Your task to perform on an android device: Search for "bose soundlink mini" on bestbuy.com, select the first entry, and add it to the cart. Image 0: 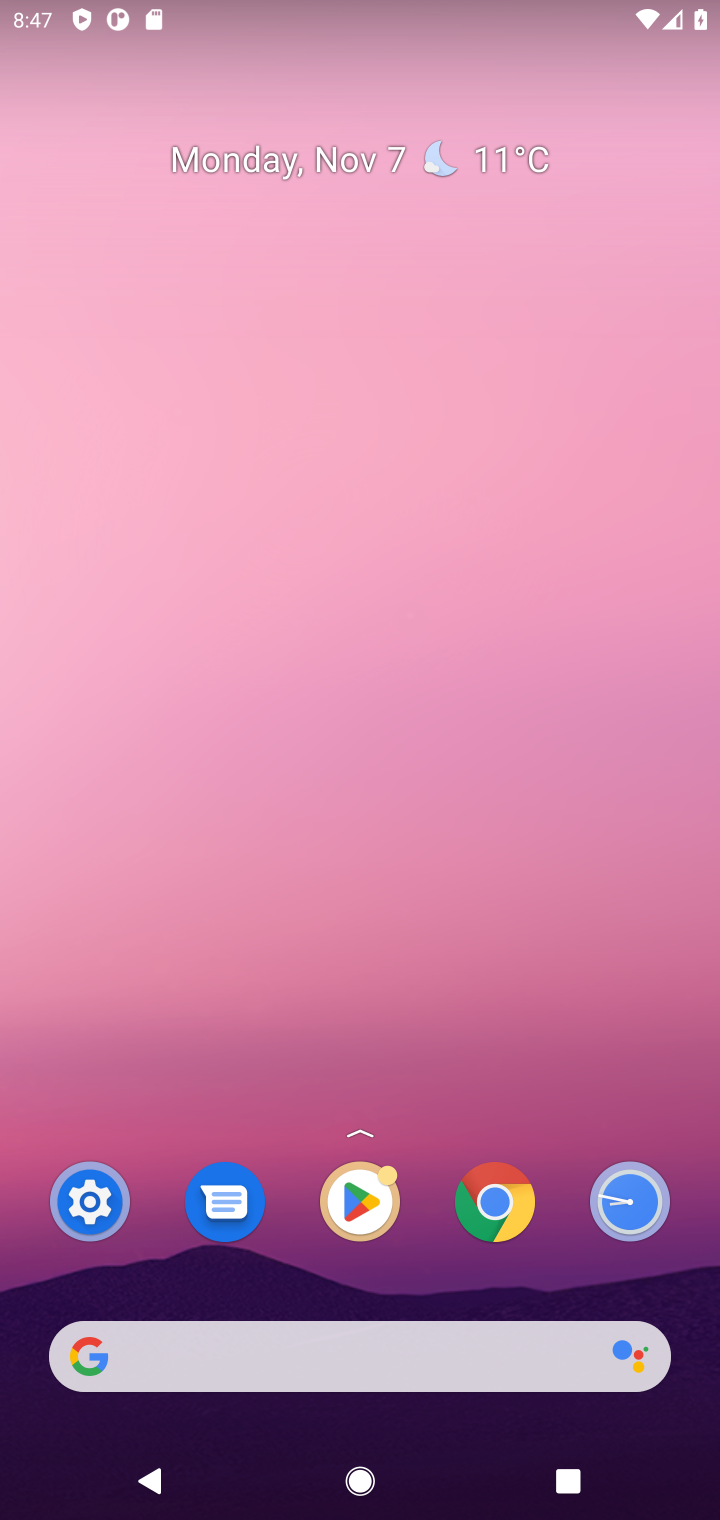
Step 0: drag from (438, 1293) to (314, 309)
Your task to perform on an android device: Search for "bose soundlink mini" on bestbuy.com, select the first entry, and add it to the cart. Image 1: 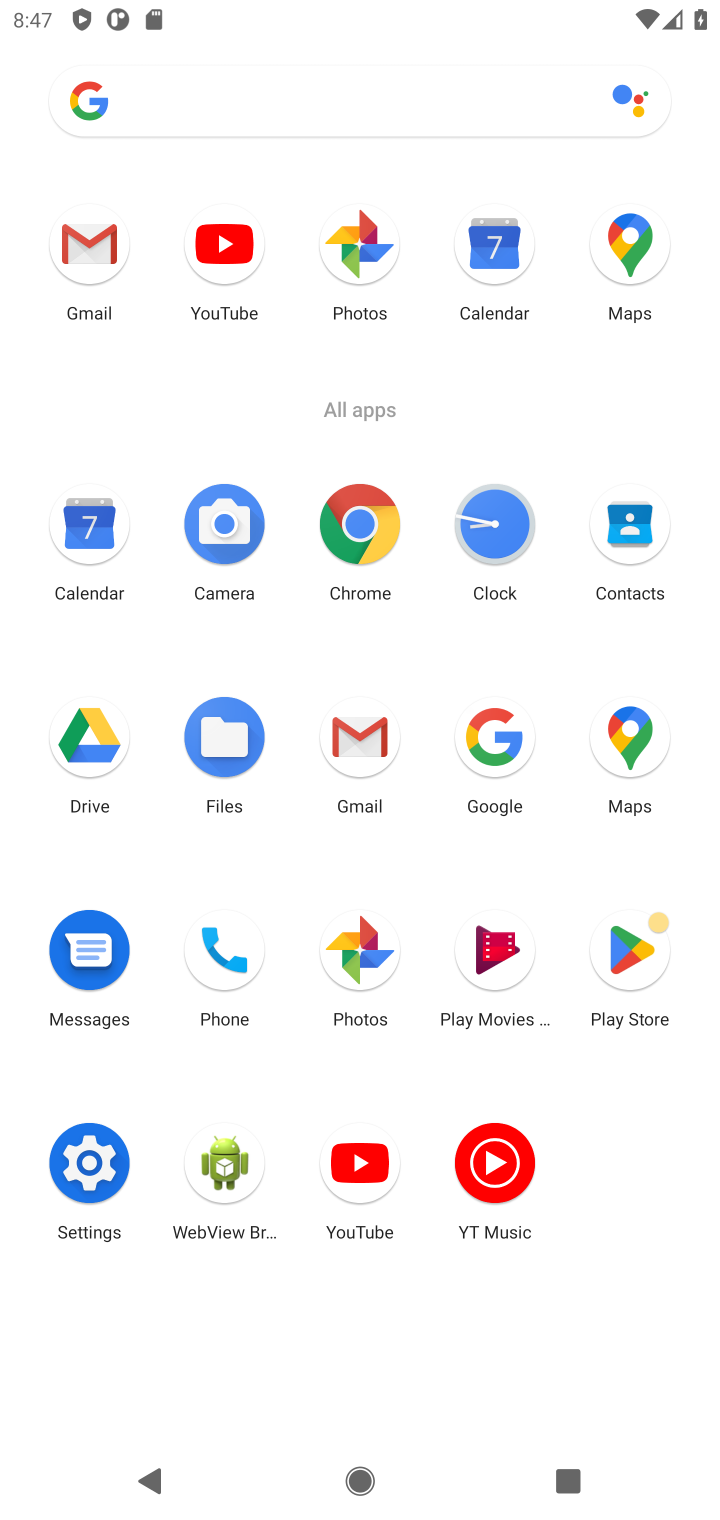
Step 1: click (354, 523)
Your task to perform on an android device: Search for "bose soundlink mini" on bestbuy.com, select the first entry, and add it to the cart. Image 2: 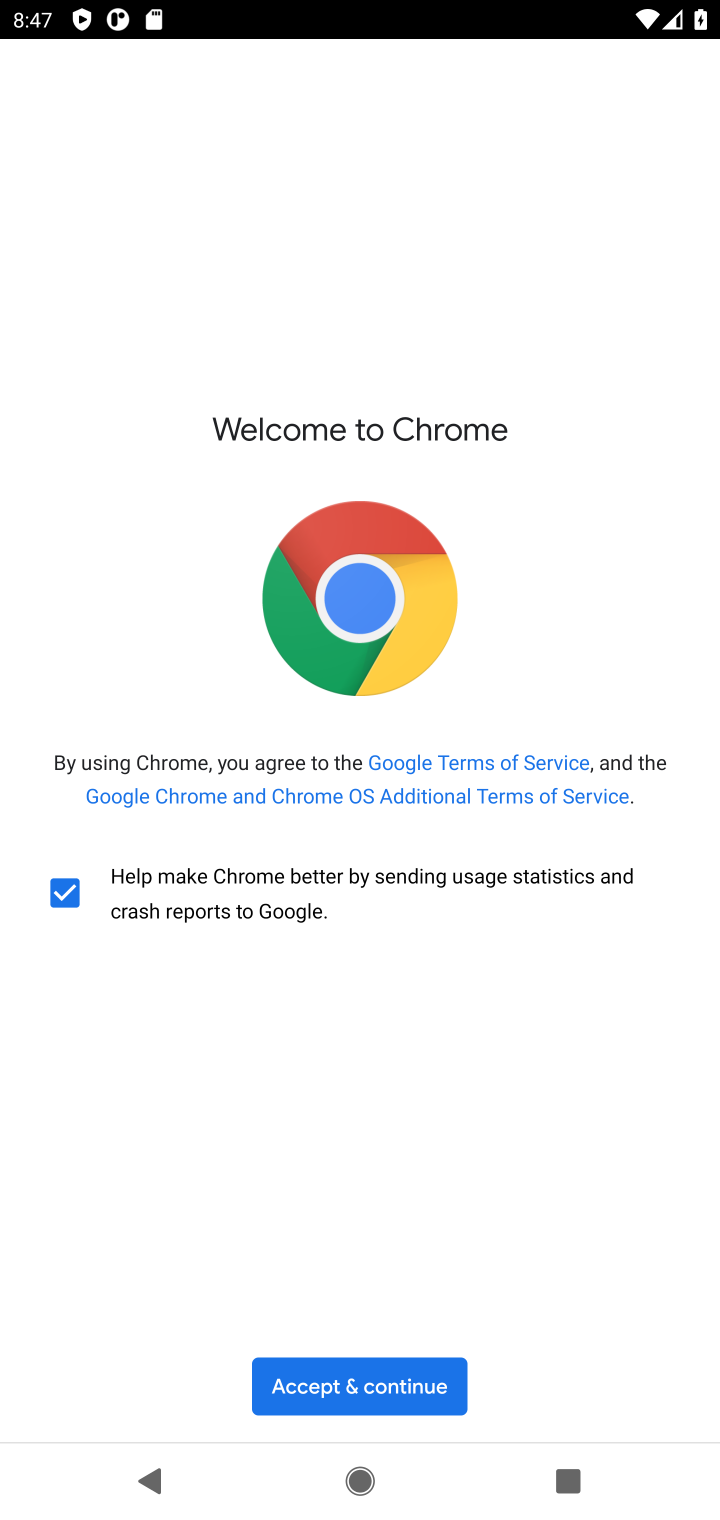
Step 2: click (403, 1382)
Your task to perform on an android device: Search for "bose soundlink mini" on bestbuy.com, select the first entry, and add it to the cart. Image 3: 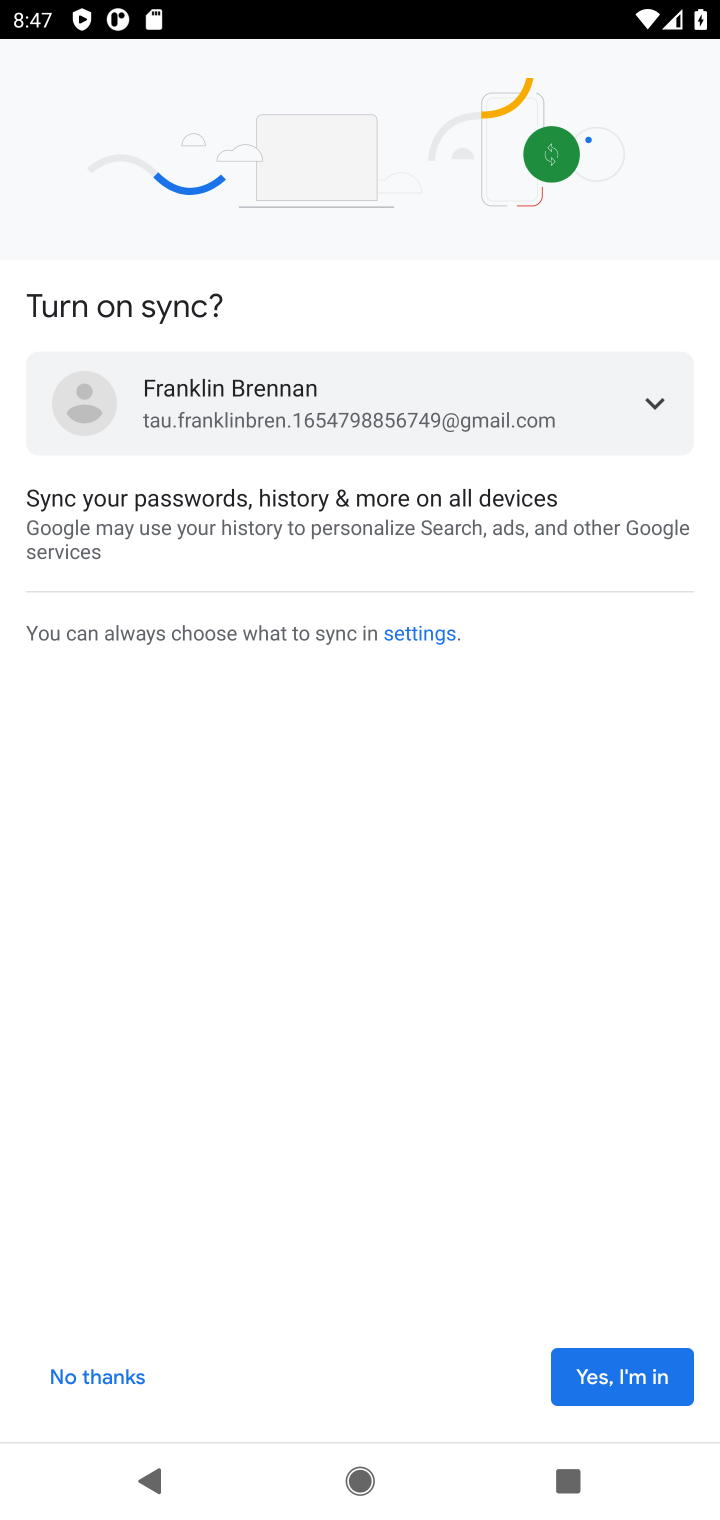
Step 3: click (646, 1382)
Your task to perform on an android device: Search for "bose soundlink mini" on bestbuy.com, select the first entry, and add it to the cart. Image 4: 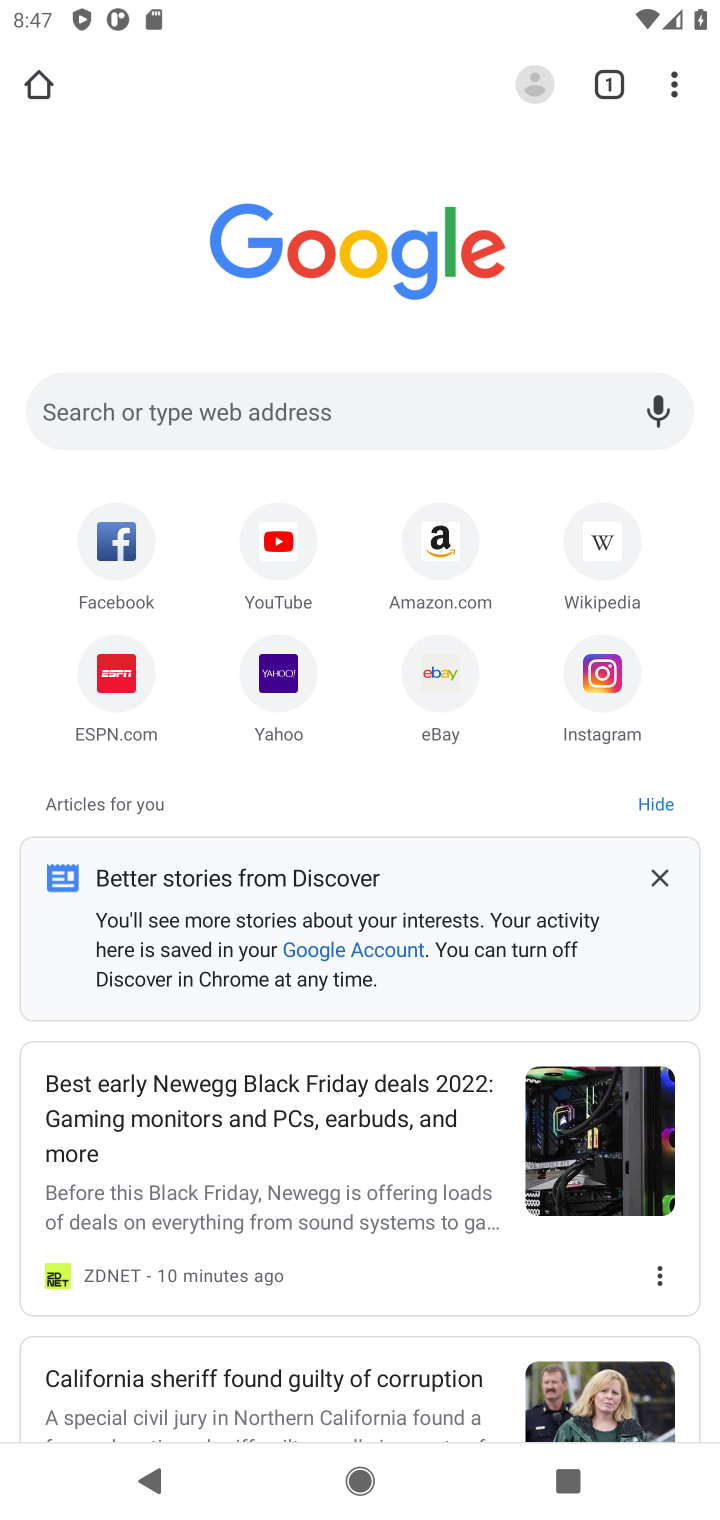
Step 4: click (396, 415)
Your task to perform on an android device: Search for "bose soundlink mini" on bestbuy.com, select the first entry, and add it to the cart. Image 5: 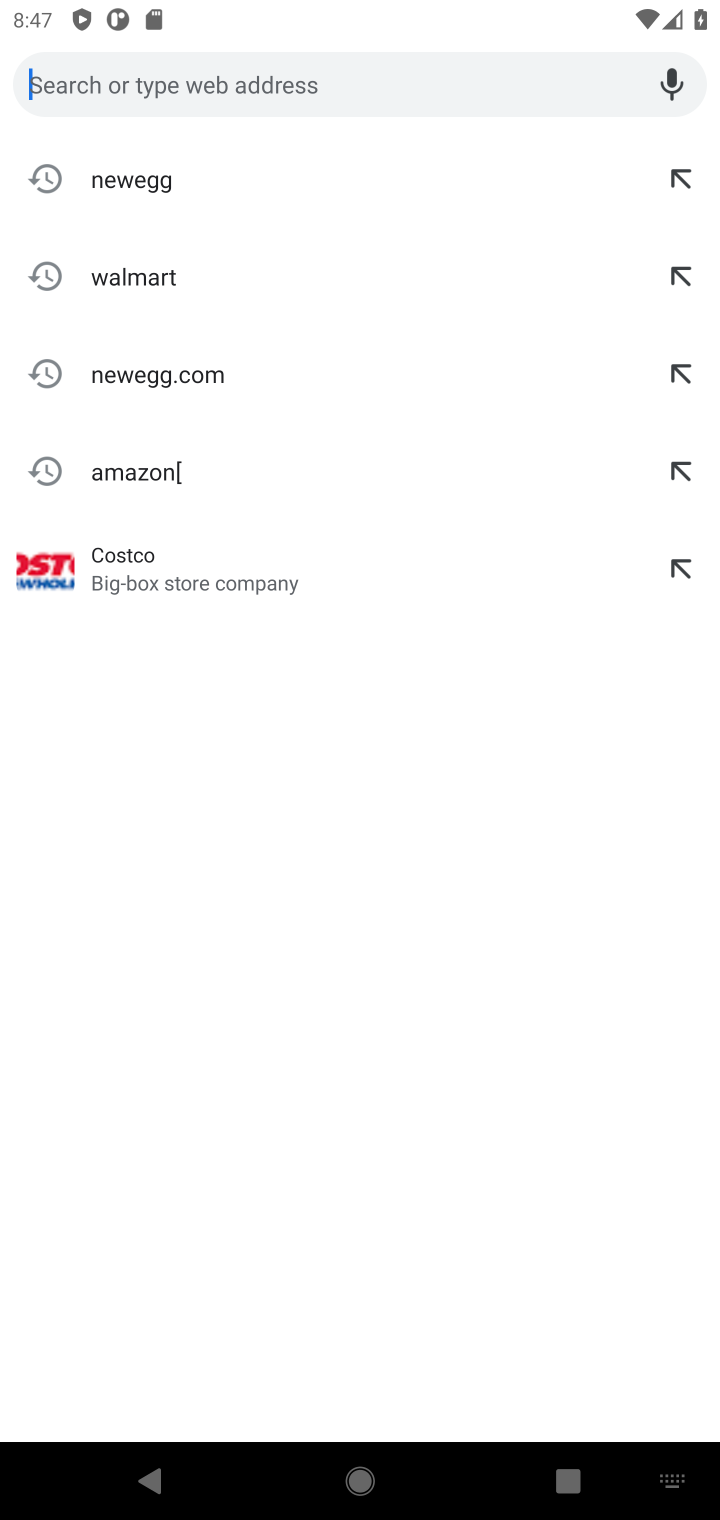
Step 5: type "bestbuy.com"
Your task to perform on an android device: Search for "bose soundlink mini" on bestbuy.com, select the first entry, and add it to the cart. Image 6: 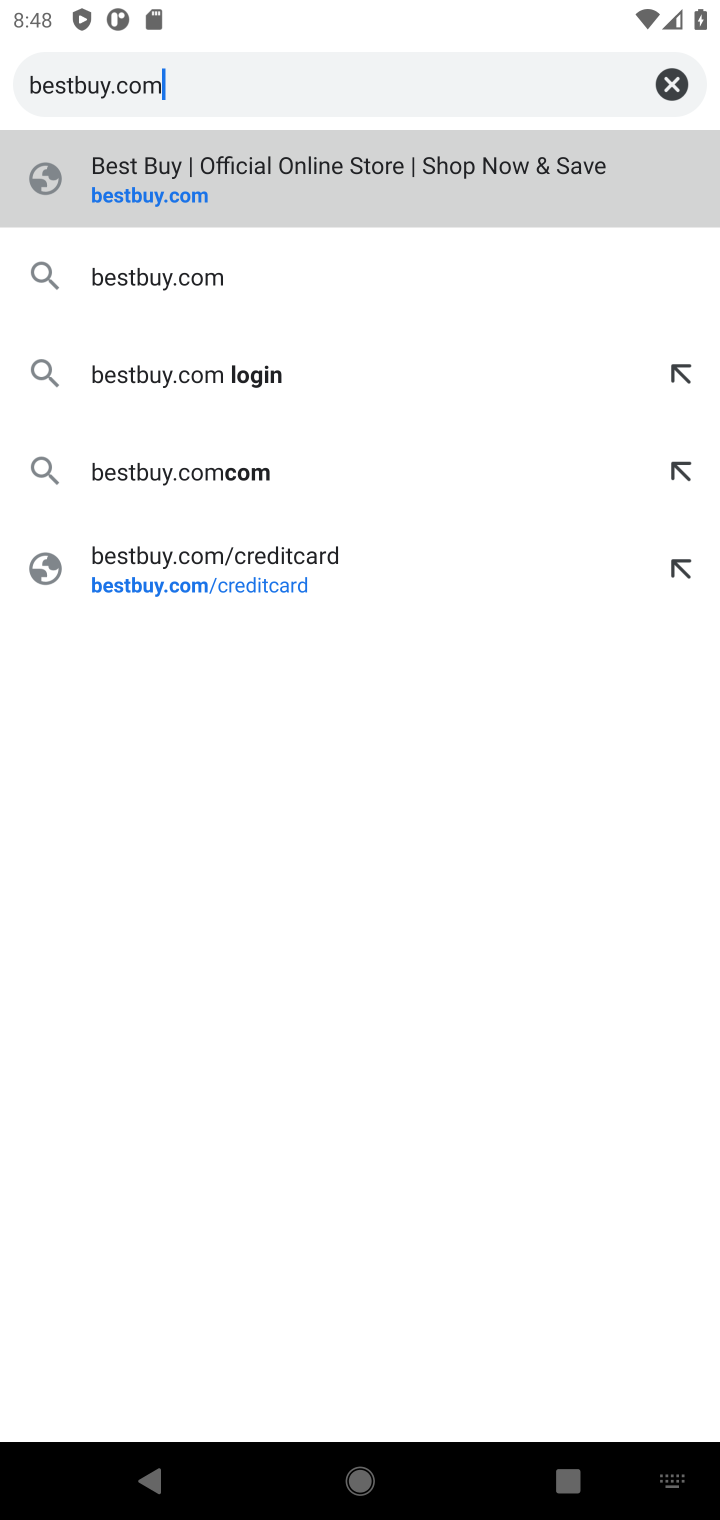
Step 6: press enter
Your task to perform on an android device: Search for "bose soundlink mini" on bestbuy.com, select the first entry, and add it to the cart. Image 7: 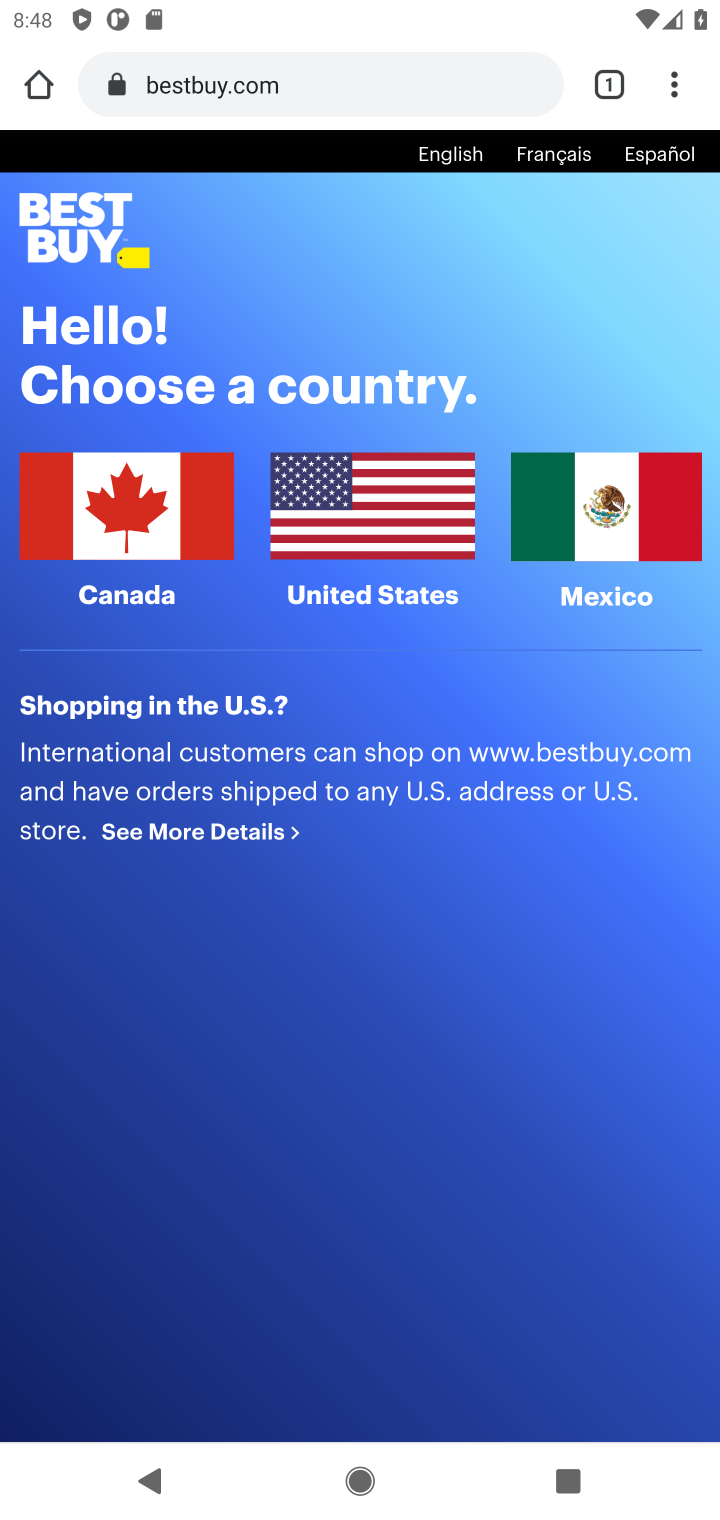
Step 7: click (141, 542)
Your task to perform on an android device: Search for "bose soundlink mini" on bestbuy.com, select the first entry, and add it to the cart. Image 8: 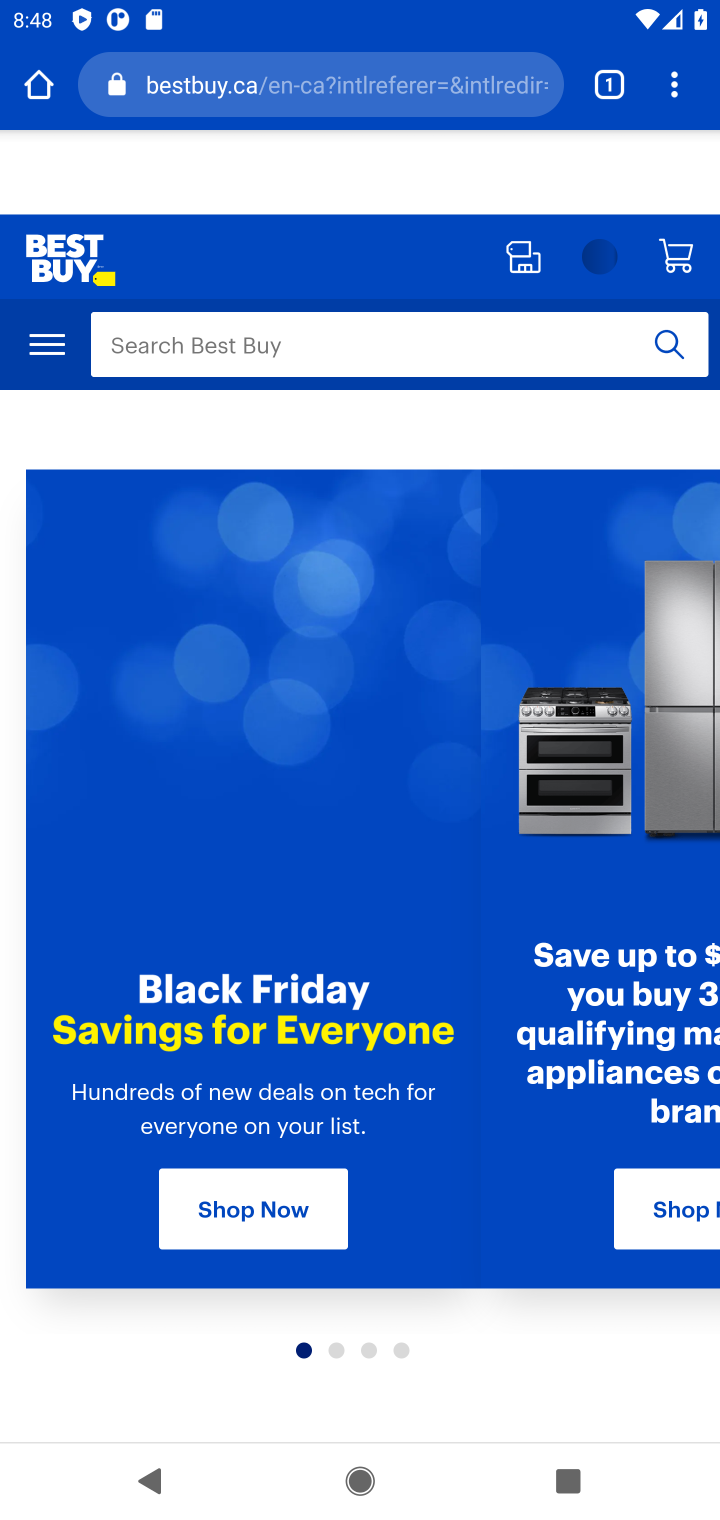
Step 8: click (302, 347)
Your task to perform on an android device: Search for "bose soundlink mini" on bestbuy.com, select the first entry, and add it to the cart. Image 9: 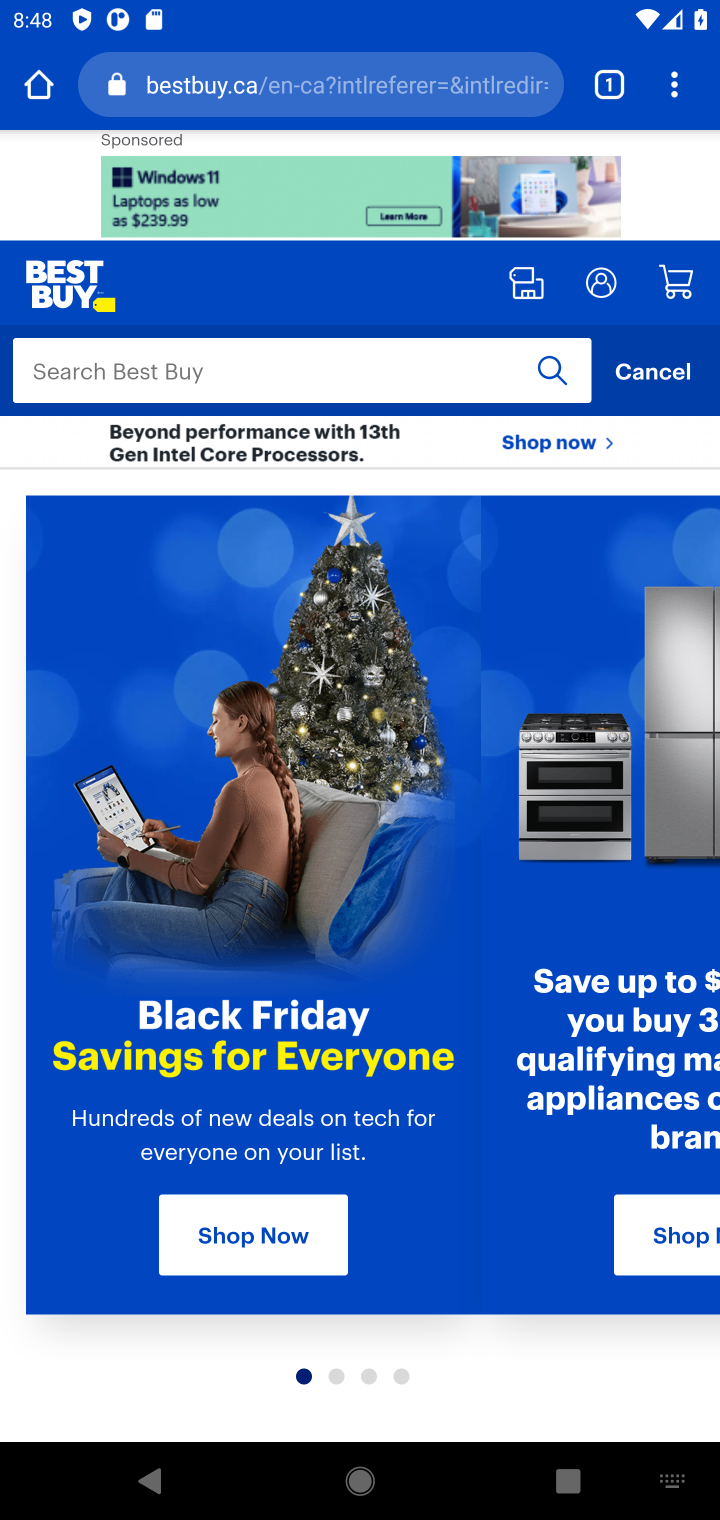
Step 9: type "bose soundlink mini"
Your task to perform on an android device: Search for "bose soundlink mini" on bestbuy.com, select the first entry, and add it to the cart. Image 10: 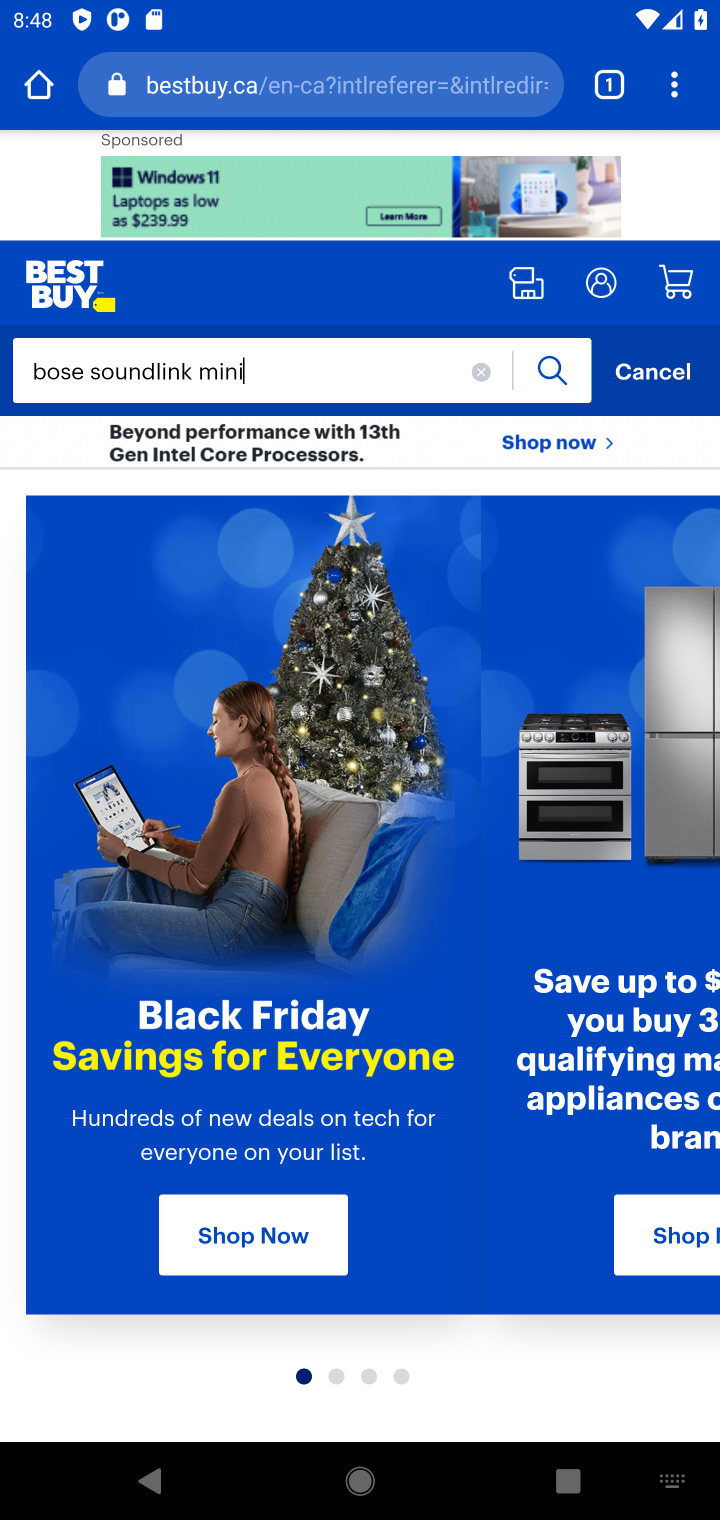
Step 10: press enter
Your task to perform on an android device: Search for "bose soundlink mini" on bestbuy.com, select the first entry, and add it to the cart. Image 11: 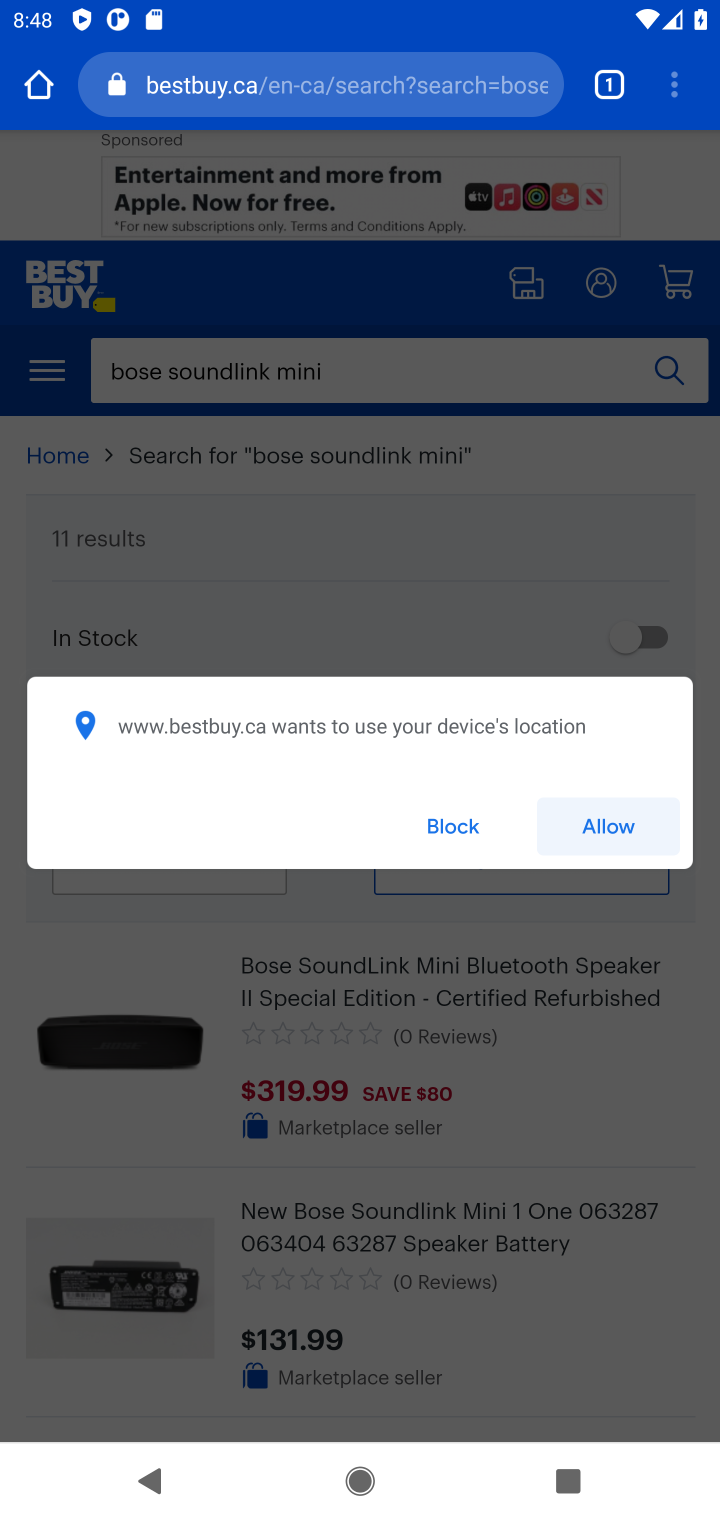
Step 11: click (479, 809)
Your task to perform on an android device: Search for "bose soundlink mini" on bestbuy.com, select the first entry, and add it to the cart. Image 12: 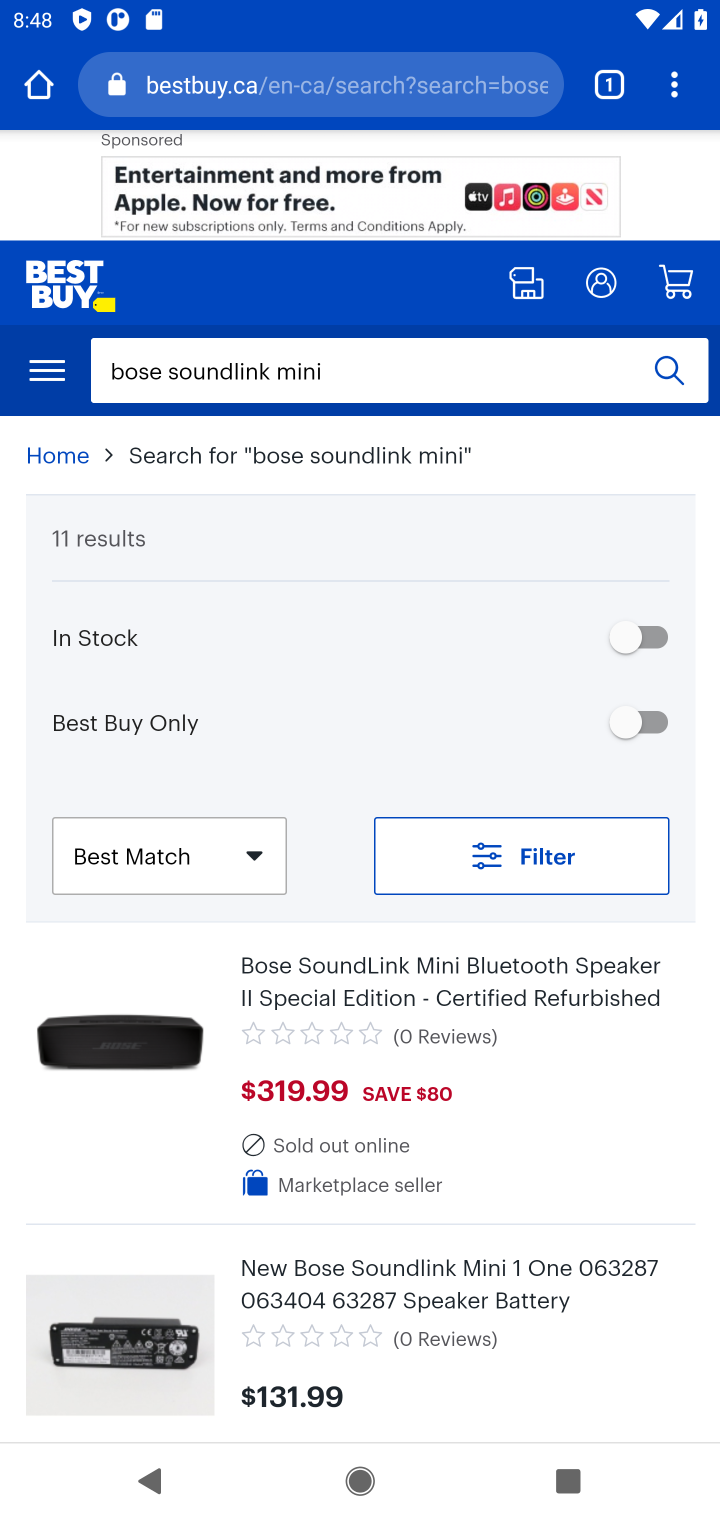
Step 12: drag from (515, 1160) to (535, 761)
Your task to perform on an android device: Search for "bose soundlink mini" on bestbuy.com, select the first entry, and add it to the cart. Image 13: 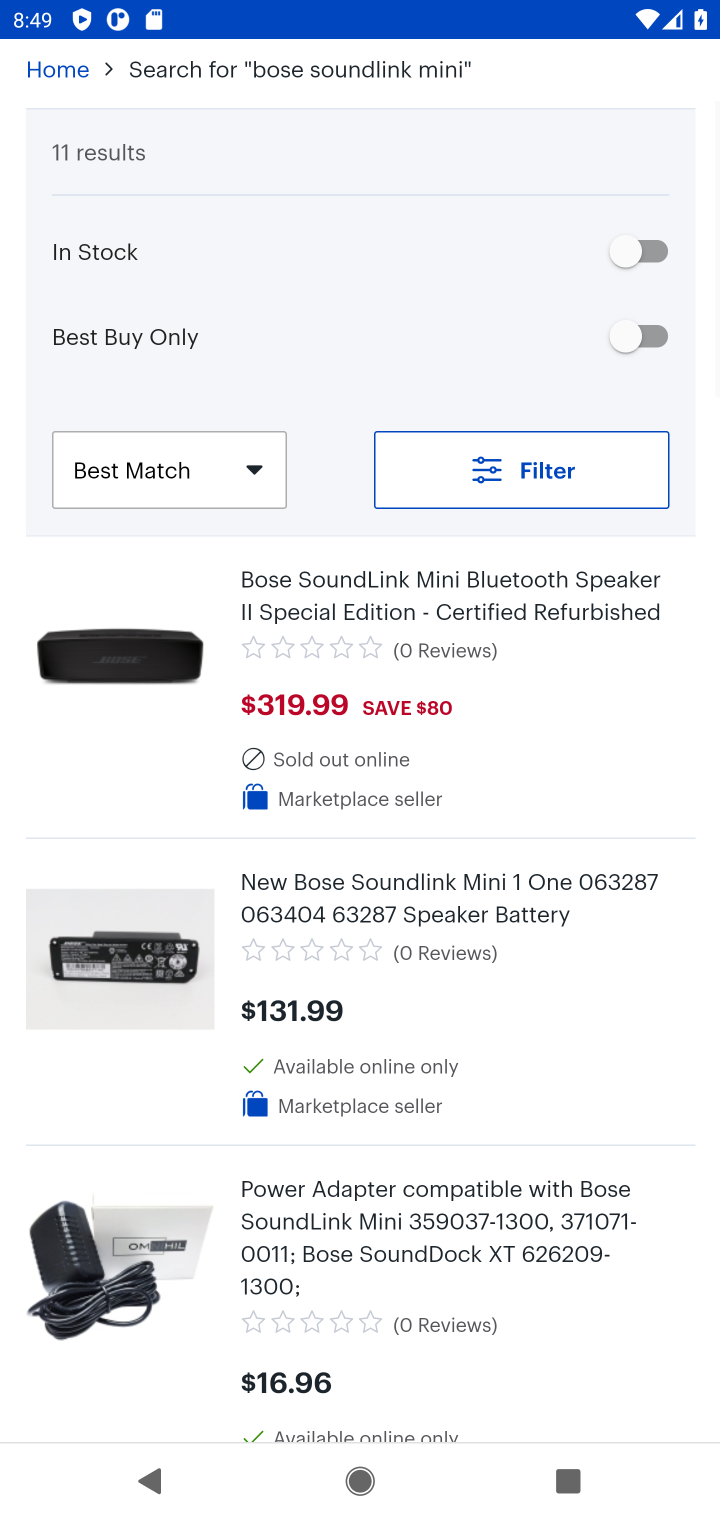
Step 13: click (311, 679)
Your task to perform on an android device: Search for "bose soundlink mini" on bestbuy.com, select the first entry, and add it to the cart. Image 14: 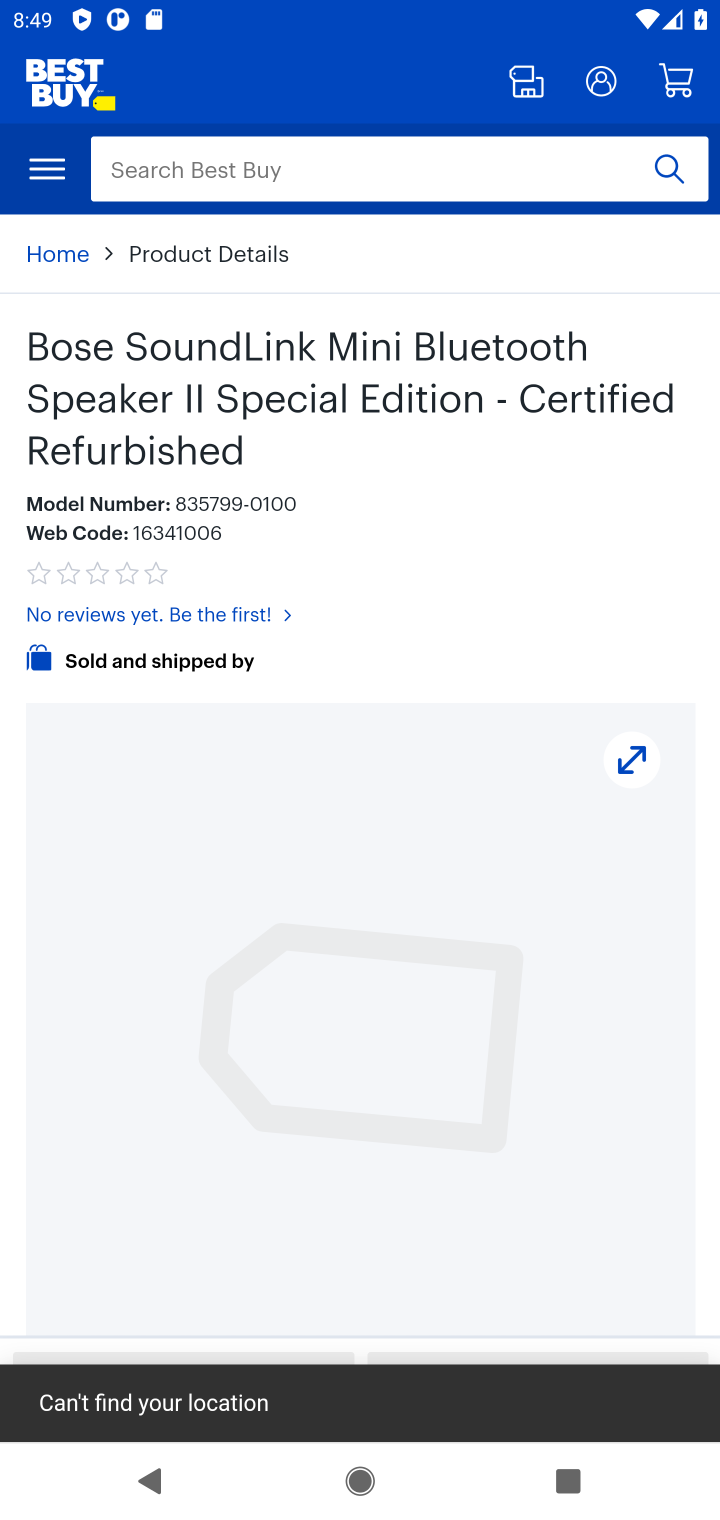
Step 14: drag from (470, 1042) to (438, 440)
Your task to perform on an android device: Search for "bose soundlink mini" on bestbuy.com, select the first entry, and add it to the cart. Image 15: 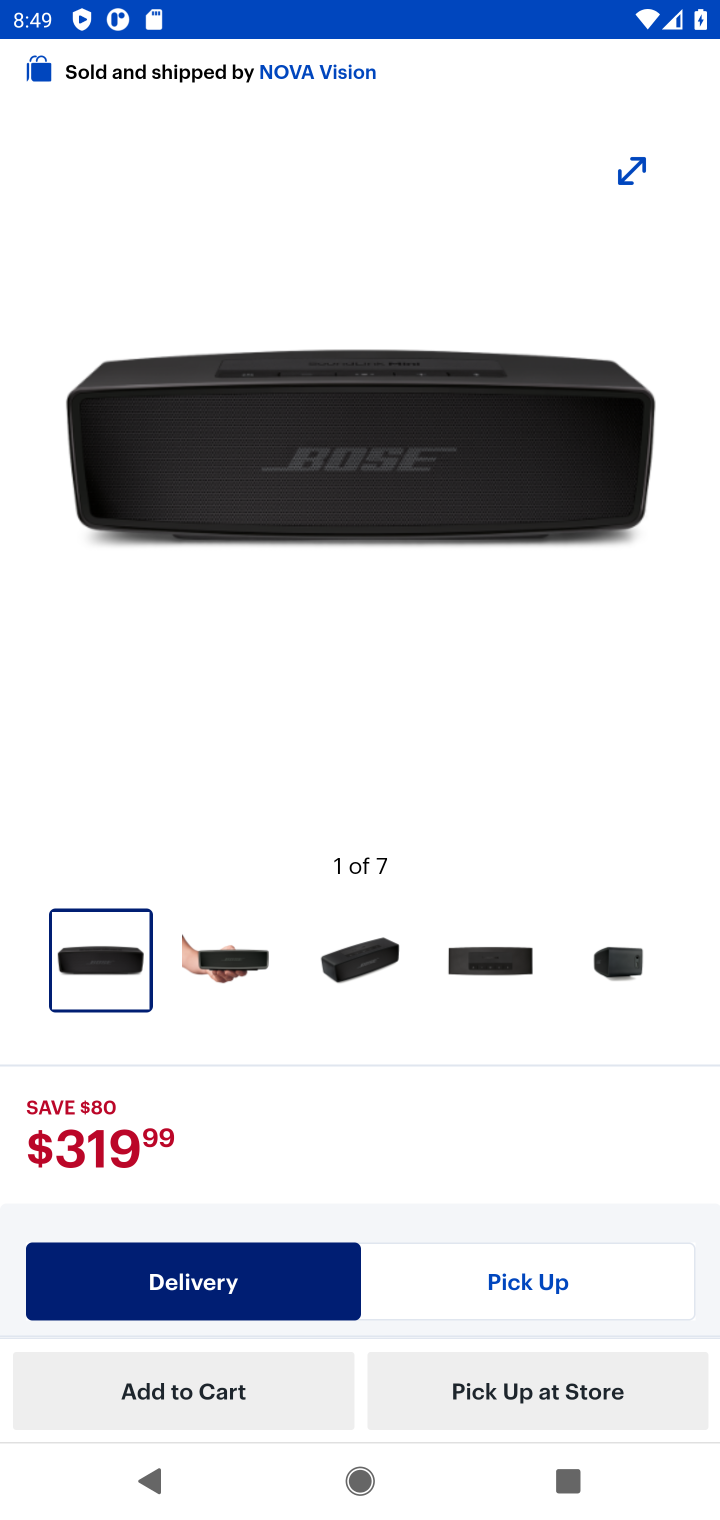
Step 15: drag from (380, 1205) to (424, 577)
Your task to perform on an android device: Search for "bose soundlink mini" on bestbuy.com, select the first entry, and add it to the cart. Image 16: 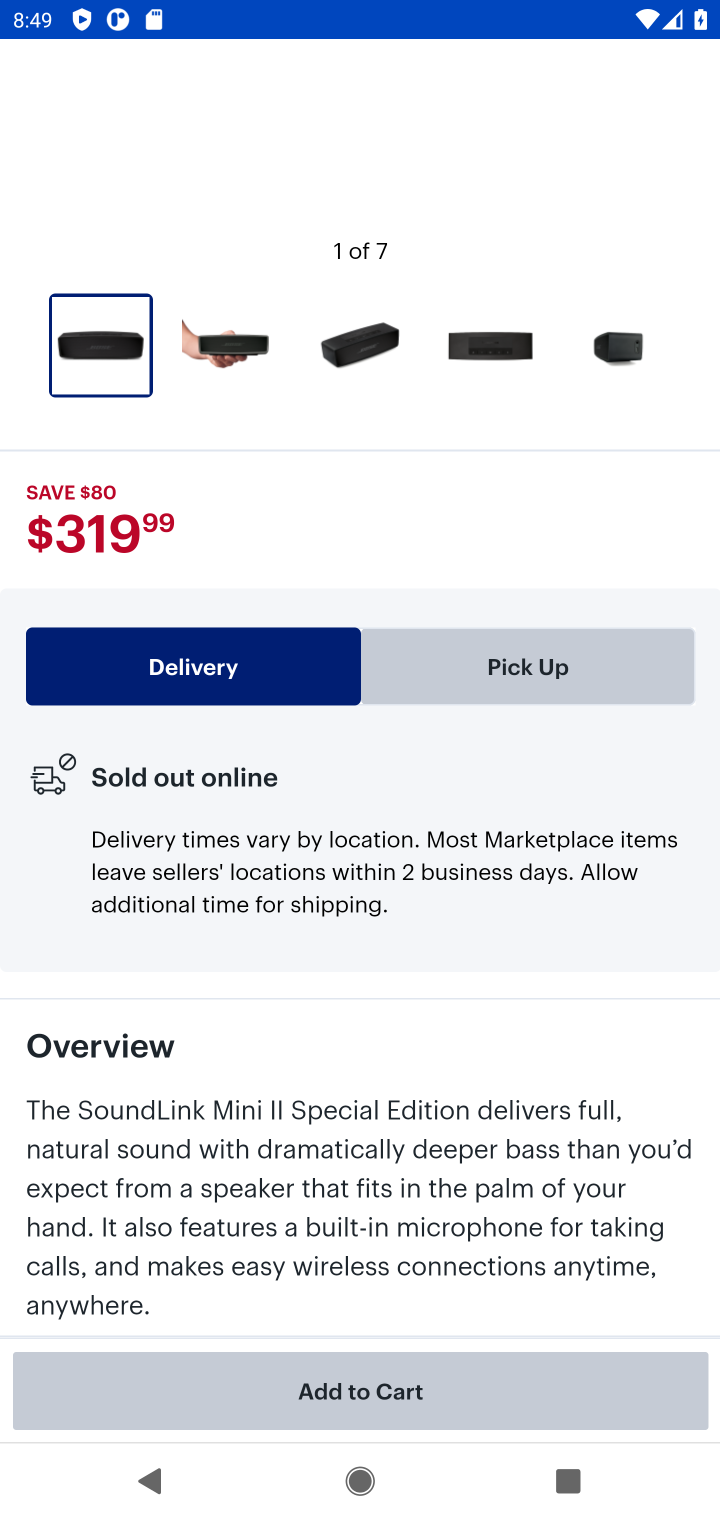
Step 16: click (398, 1388)
Your task to perform on an android device: Search for "bose soundlink mini" on bestbuy.com, select the first entry, and add it to the cart. Image 17: 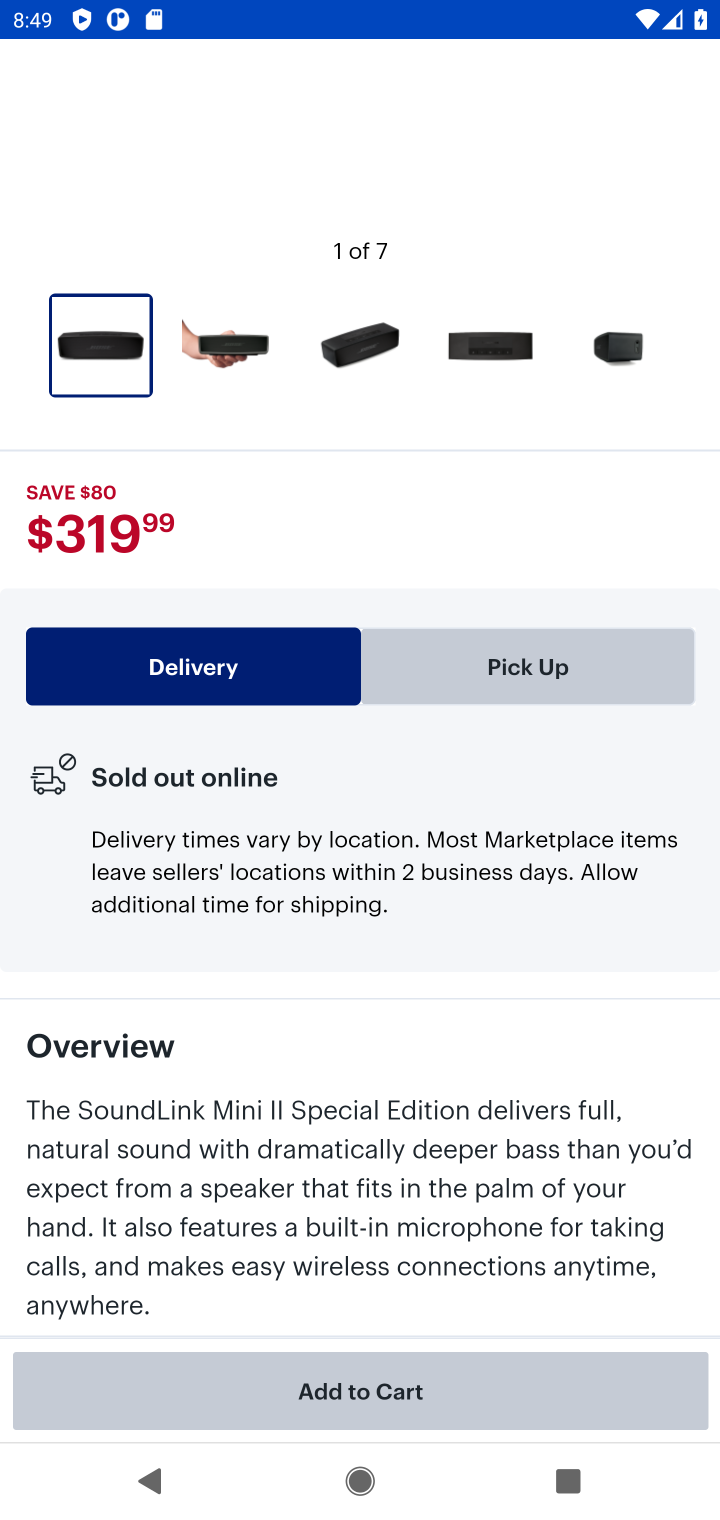
Step 17: drag from (441, 838) to (387, 1296)
Your task to perform on an android device: Search for "bose soundlink mini" on bestbuy.com, select the first entry, and add it to the cart. Image 18: 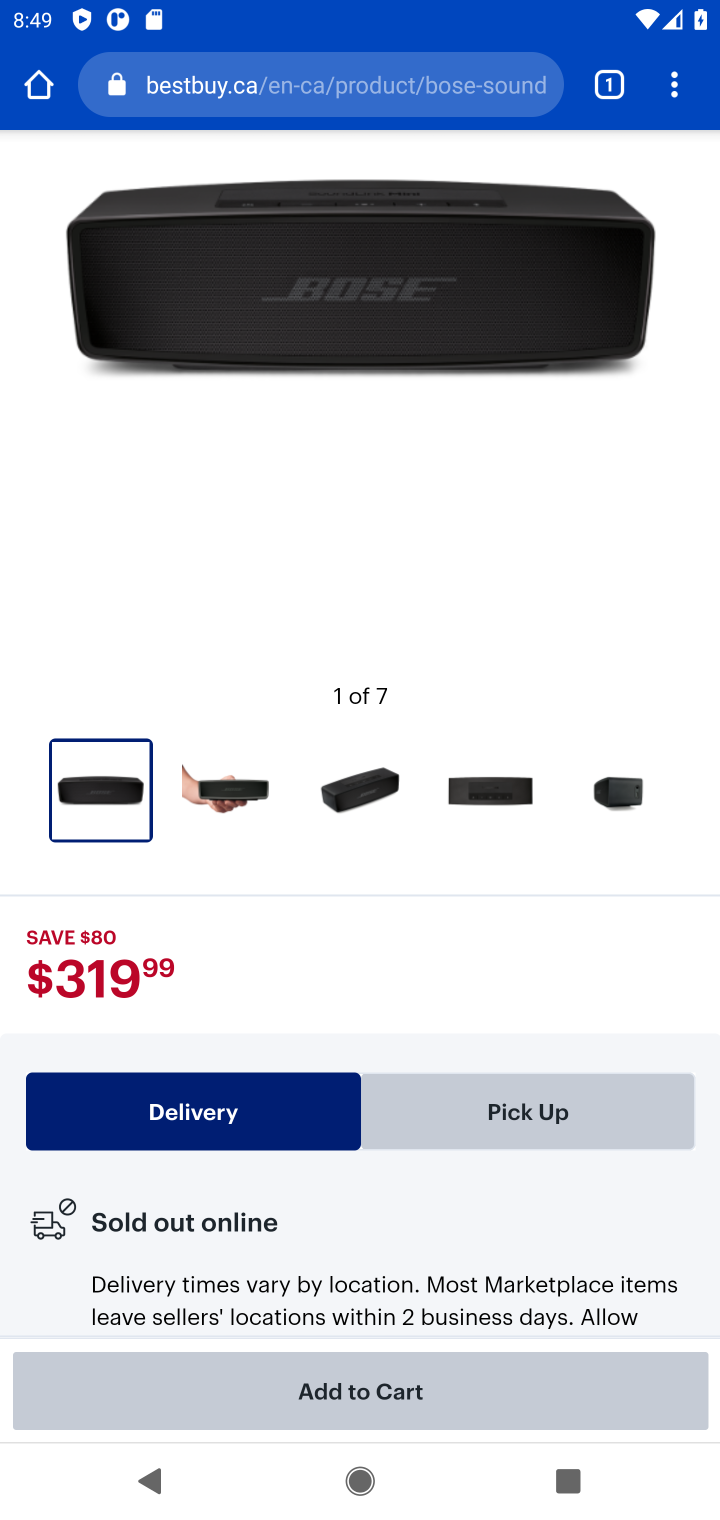
Step 18: drag from (395, 1268) to (401, 547)
Your task to perform on an android device: Search for "bose soundlink mini" on bestbuy.com, select the first entry, and add it to the cart. Image 19: 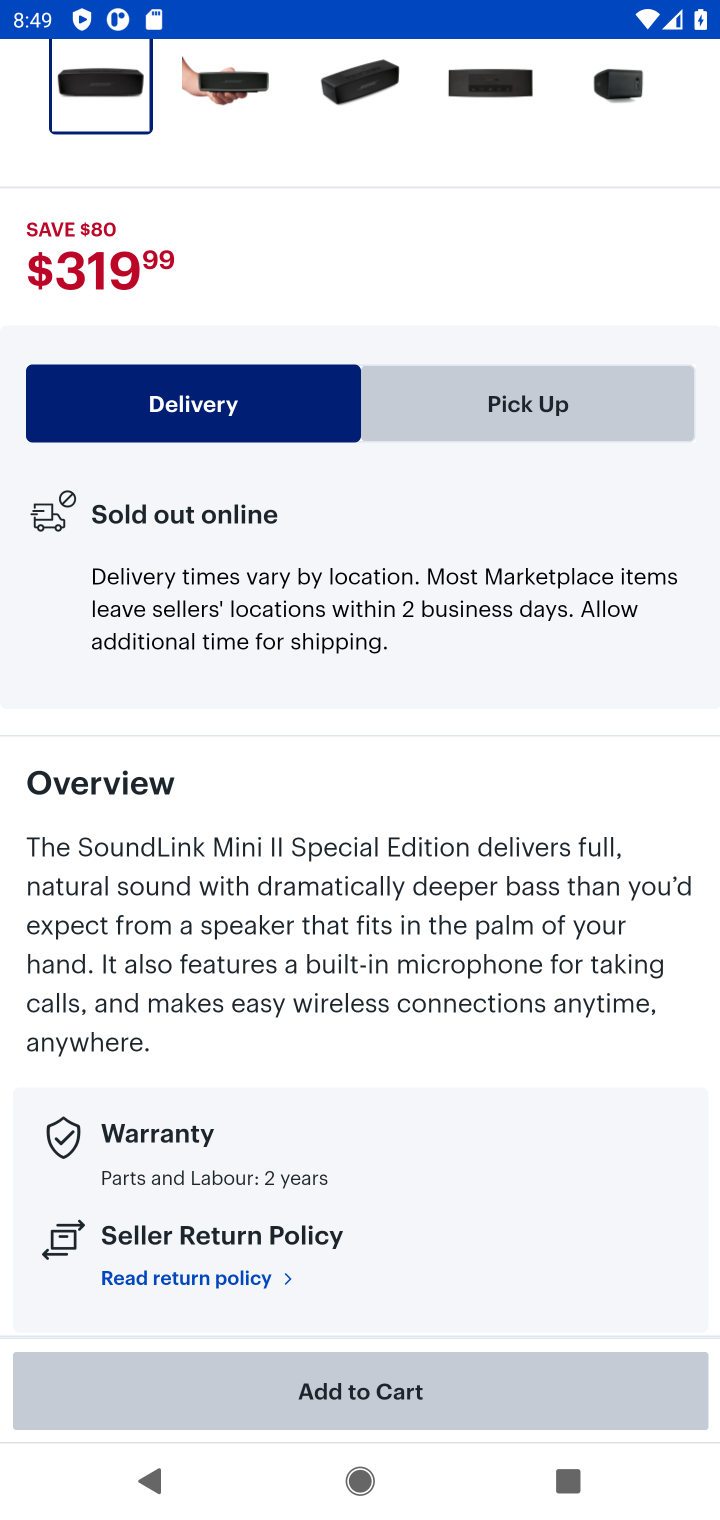
Step 19: click (398, 1403)
Your task to perform on an android device: Search for "bose soundlink mini" on bestbuy.com, select the first entry, and add it to the cart. Image 20: 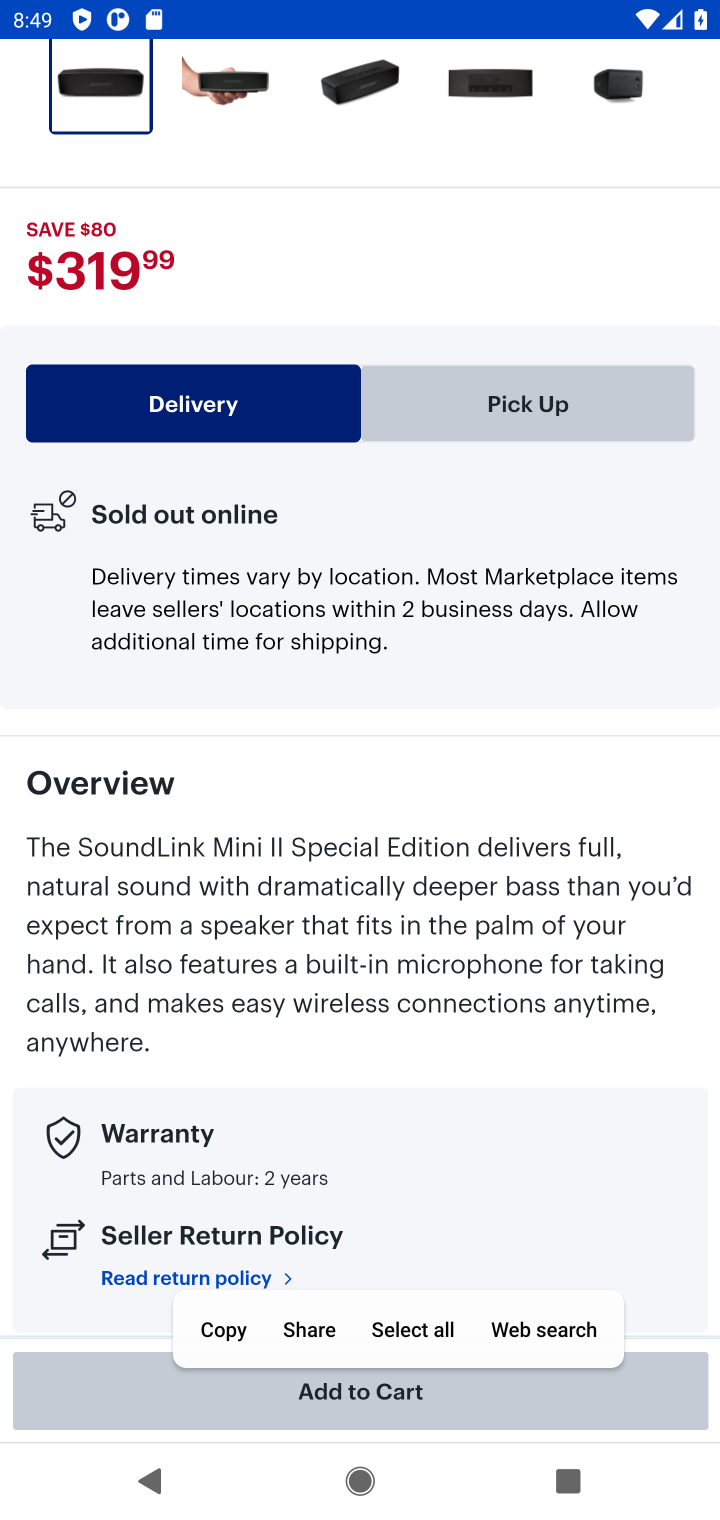
Step 20: click (398, 1403)
Your task to perform on an android device: Search for "bose soundlink mini" on bestbuy.com, select the first entry, and add it to the cart. Image 21: 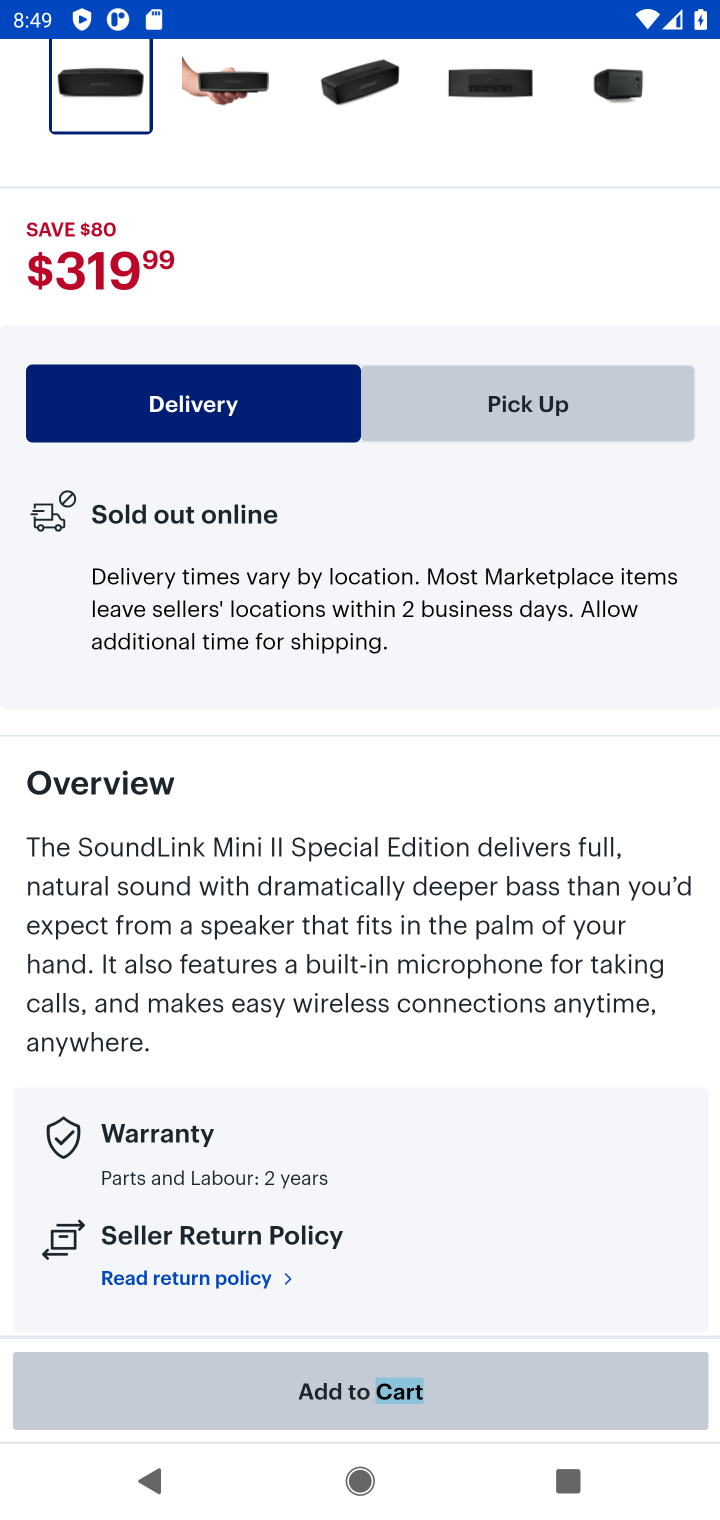
Step 21: click (178, 1377)
Your task to perform on an android device: Search for "bose soundlink mini" on bestbuy.com, select the first entry, and add it to the cart. Image 22: 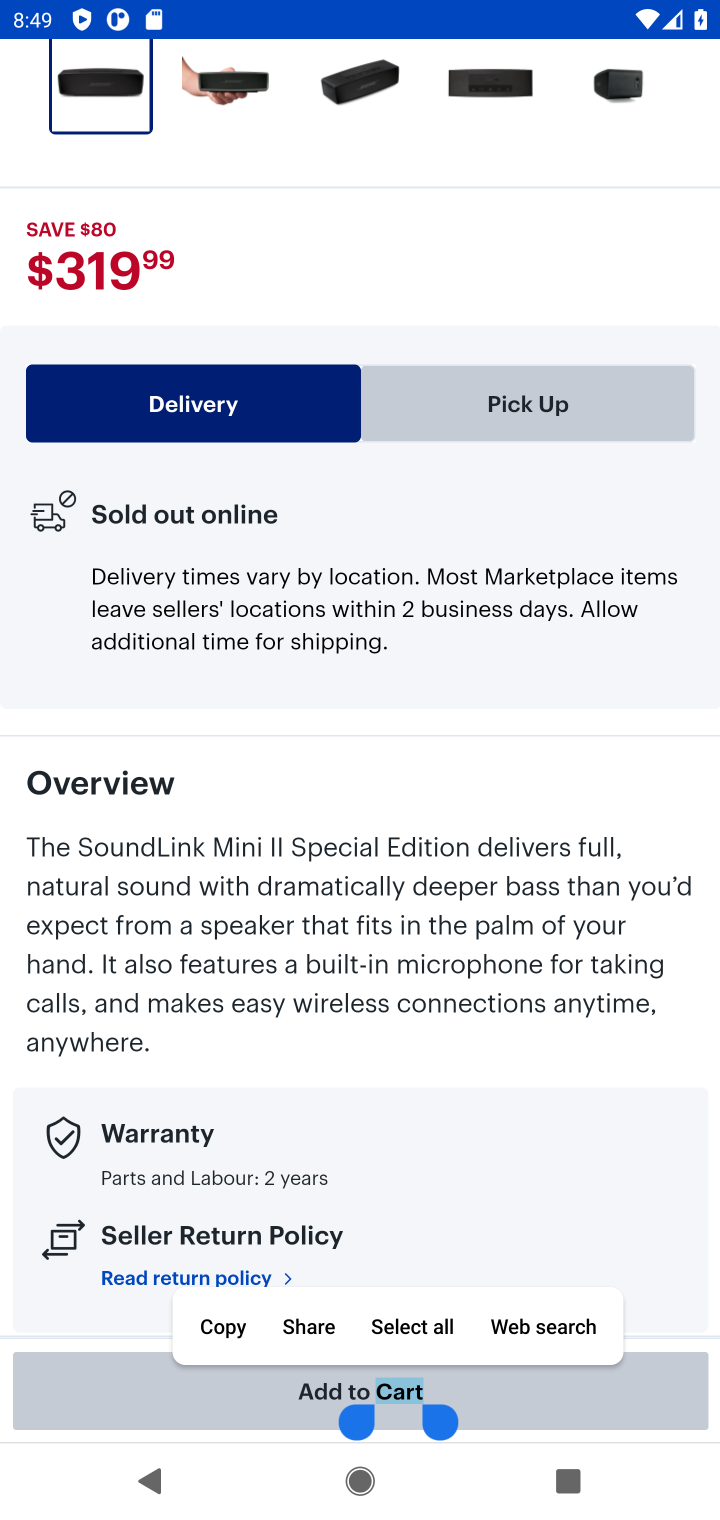
Step 22: click (190, 1383)
Your task to perform on an android device: Search for "bose soundlink mini" on bestbuy.com, select the first entry, and add it to the cart. Image 23: 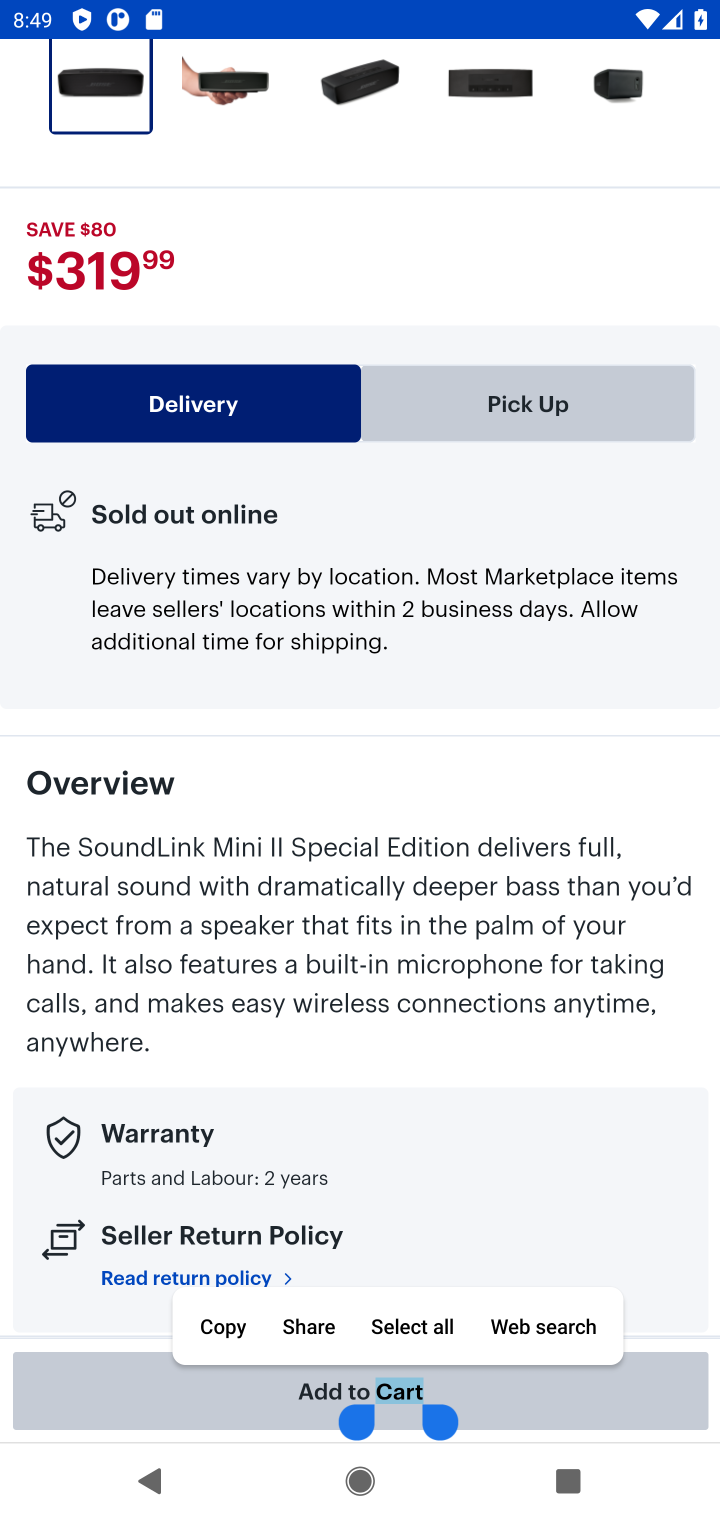
Step 23: click (358, 1358)
Your task to perform on an android device: Search for "bose soundlink mini" on bestbuy.com, select the first entry, and add it to the cart. Image 24: 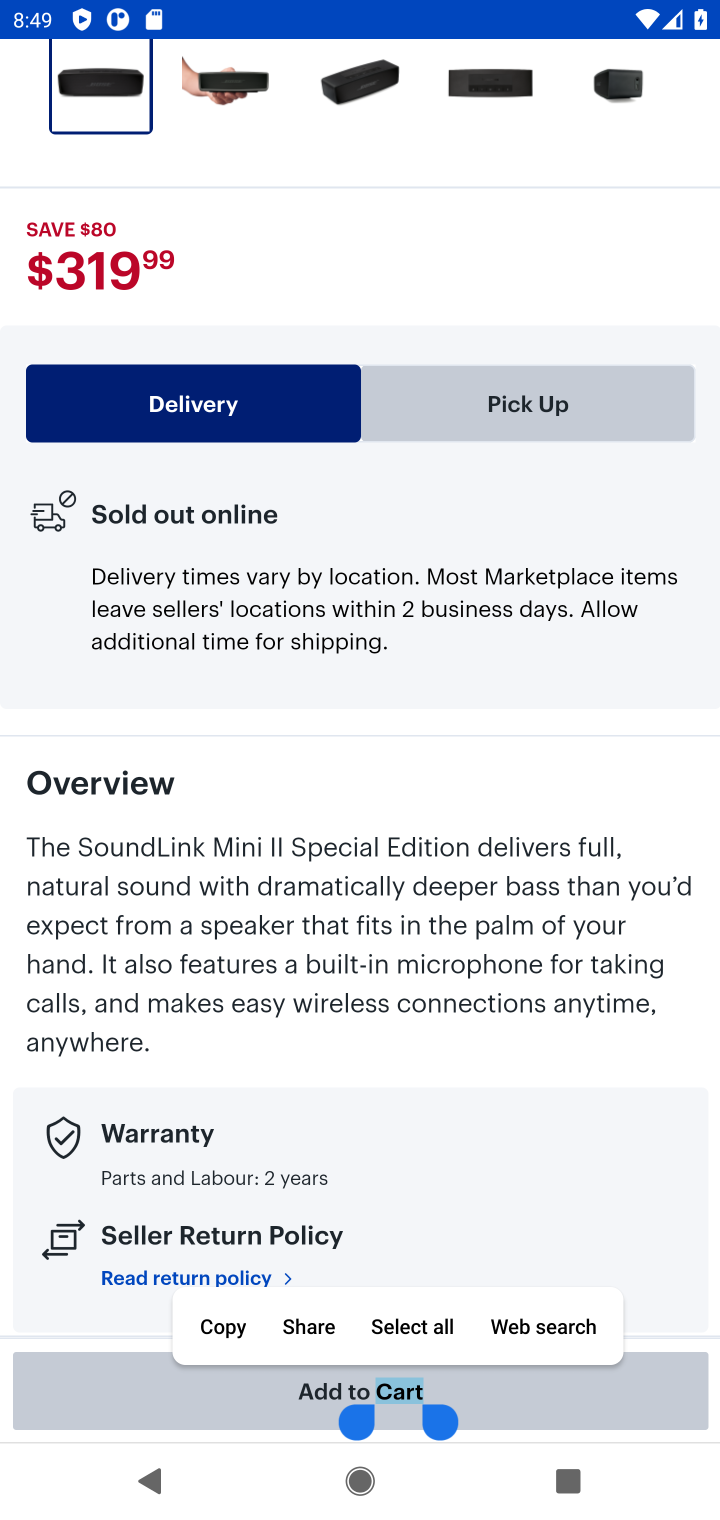
Step 24: click (392, 1377)
Your task to perform on an android device: Search for "bose soundlink mini" on bestbuy.com, select the first entry, and add it to the cart. Image 25: 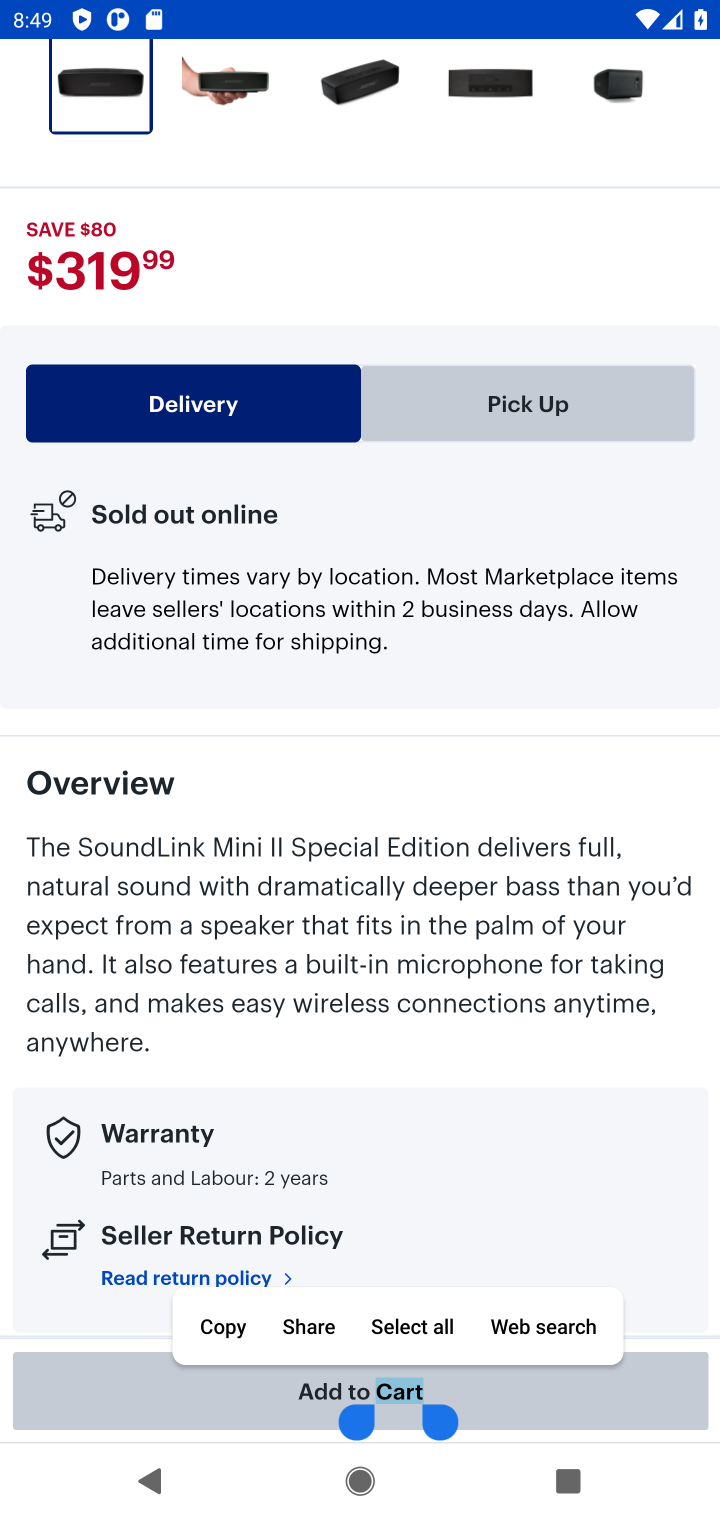
Step 25: click (542, 1371)
Your task to perform on an android device: Search for "bose soundlink mini" on bestbuy.com, select the first entry, and add it to the cart. Image 26: 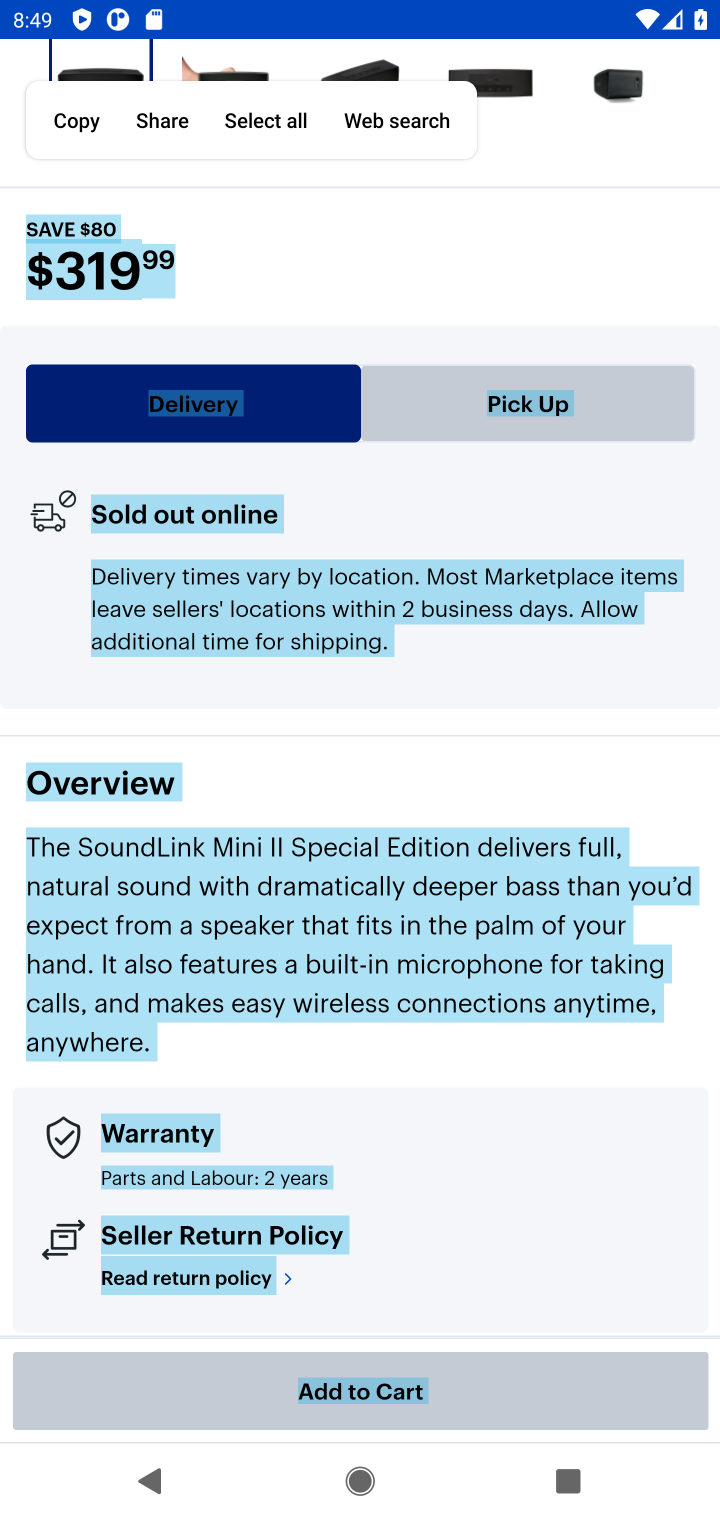
Step 26: task complete